Your task to perform on an android device: Is it going to rain today? Image 0: 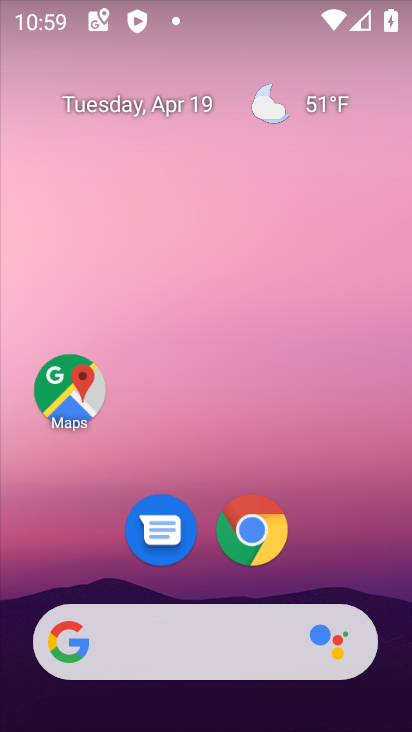
Step 0: click (322, 97)
Your task to perform on an android device: Is it going to rain today? Image 1: 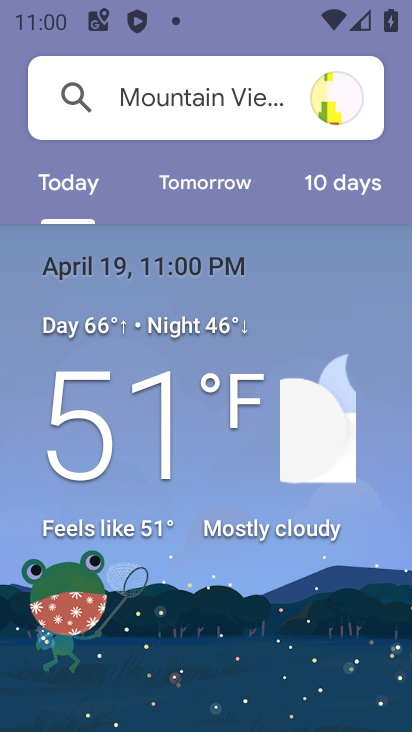
Step 1: task complete